Your task to perform on an android device: Search for seafood restaurants on Google Maps Image 0: 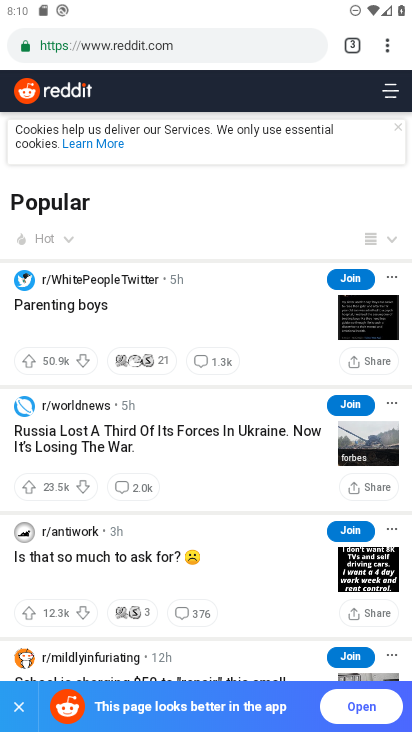
Step 0: press home button
Your task to perform on an android device: Search for seafood restaurants on Google Maps Image 1: 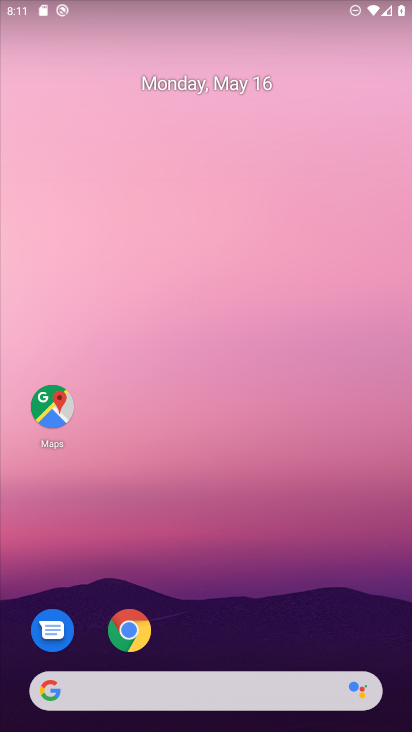
Step 1: click (43, 431)
Your task to perform on an android device: Search for seafood restaurants on Google Maps Image 2: 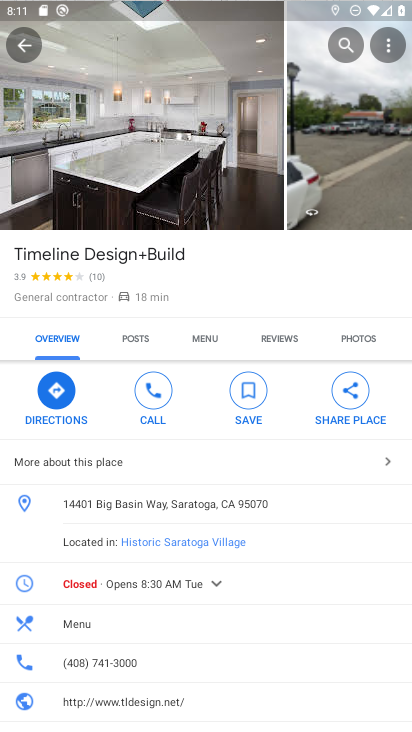
Step 2: drag from (28, 116) to (106, 524)
Your task to perform on an android device: Search for seafood restaurants on Google Maps Image 3: 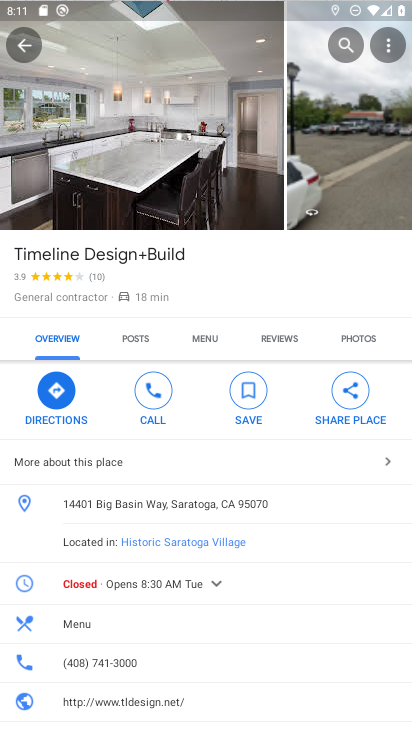
Step 3: drag from (199, 293) to (246, 542)
Your task to perform on an android device: Search for seafood restaurants on Google Maps Image 4: 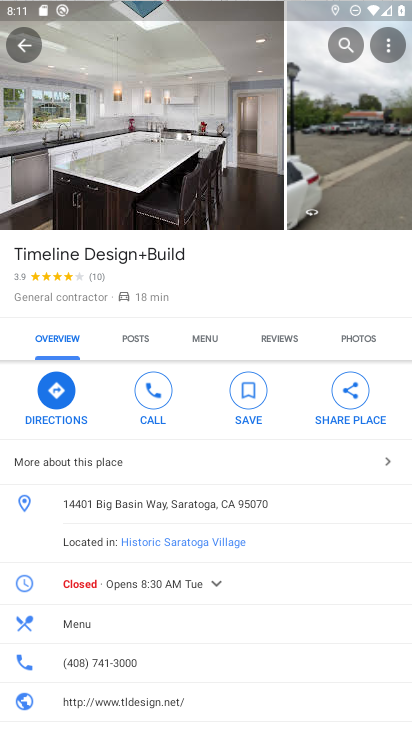
Step 4: click (24, 46)
Your task to perform on an android device: Search for seafood restaurants on Google Maps Image 5: 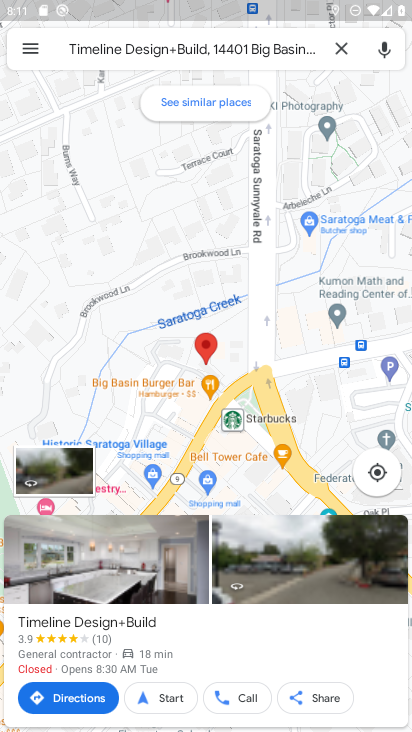
Step 5: click (345, 44)
Your task to perform on an android device: Search for seafood restaurants on Google Maps Image 6: 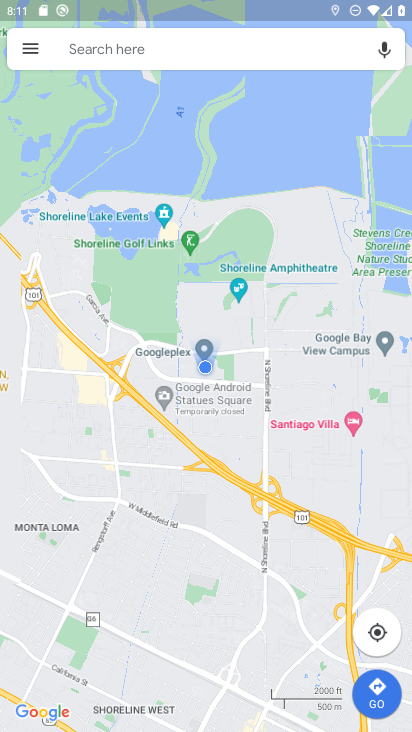
Step 6: click (241, 47)
Your task to perform on an android device: Search for seafood restaurants on Google Maps Image 7: 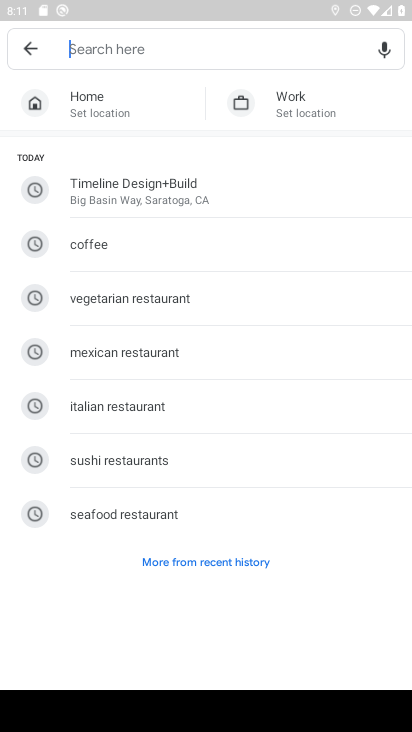
Step 7: click (88, 520)
Your task to perform on an android device: Search for seafood restaurants on Google Maps Image 8: 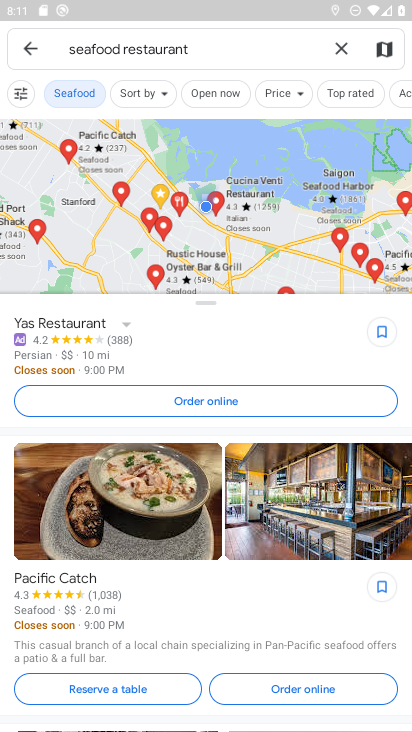
Step 8: task complete